Your task to perform on an android device: Open Youtube and go to the subscriptions tab Image 0: 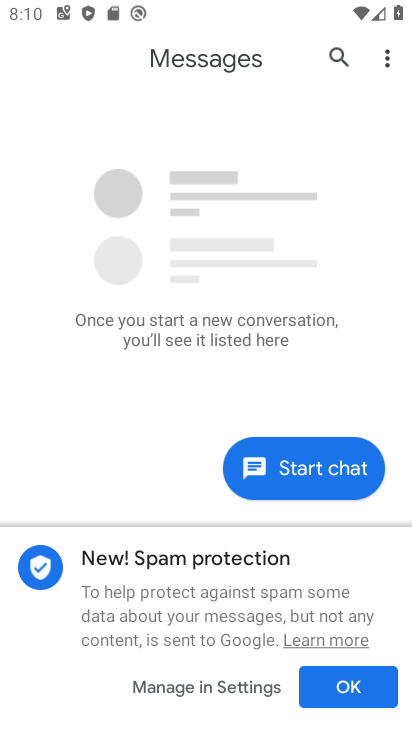
Step 0: press home button
Your task to perform on an android device: Open Youtube and go to the subscriptions tab Image 1: 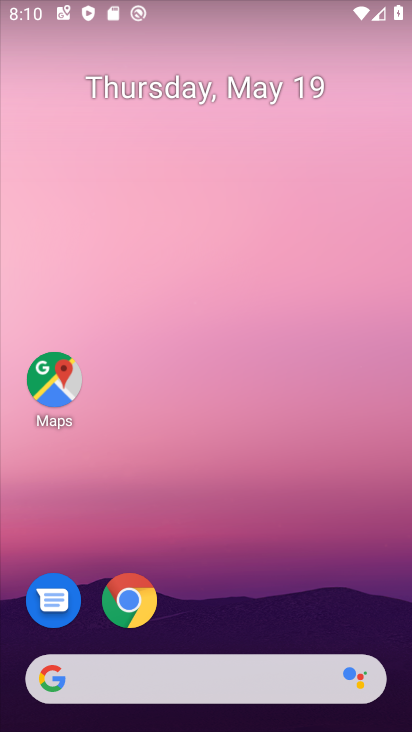
Step 1: drag from (248, 639) to (269, 11)
Your task to perform on an android device: Open Youtube and go to the subscriptions tab Image 2: 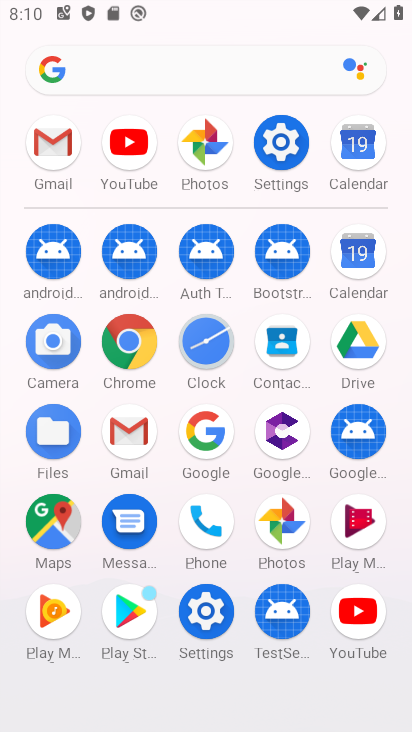
Step 2: click (358, 612)
Your task to perform on an android device: Open Youtube and go to the subscriptions tab Image 3: 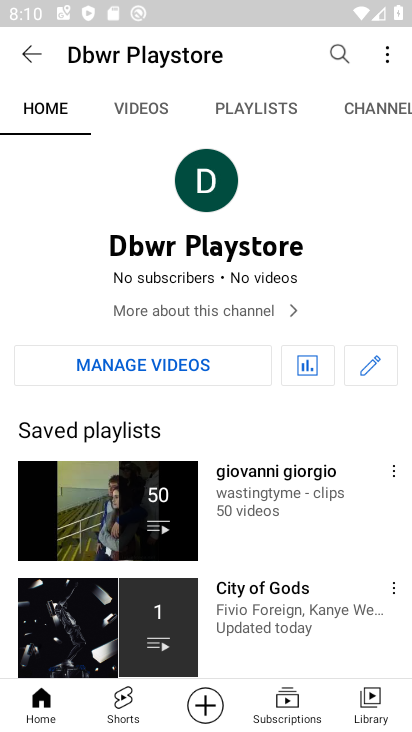
Step 3: click (287, 704)
Your task to perform on an android device: Open Youtube and go to the subscriptions tab Image 4: 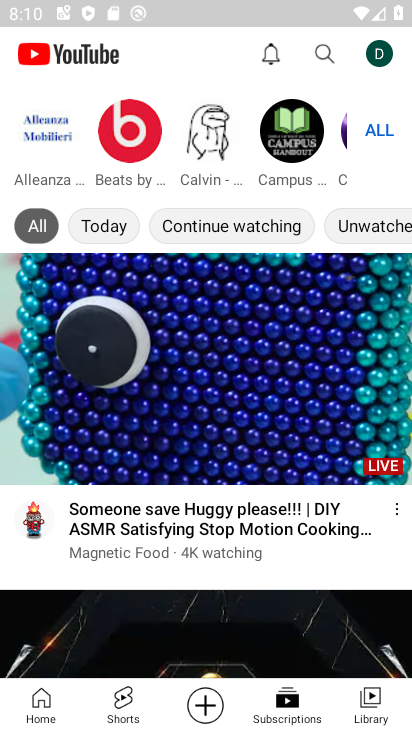
Step 4: task complete